Your task to perform on an android device: clear history in the chrome app Image 0: 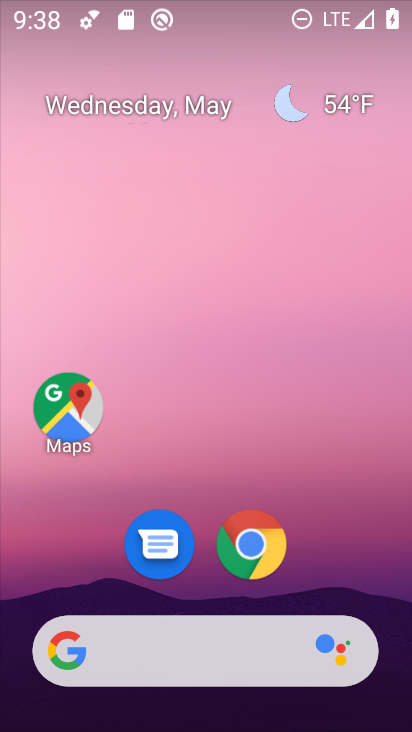
Step 0: click (253, 540)
Your task to perform on an android device: clear history in the chrome app Image 1: 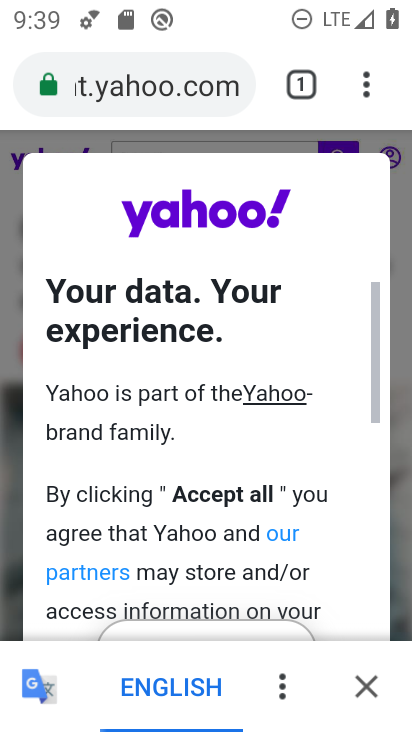
Step 1: click (388, 80)
Your task to perform on an android device: clear history in the chrome app Image 2: 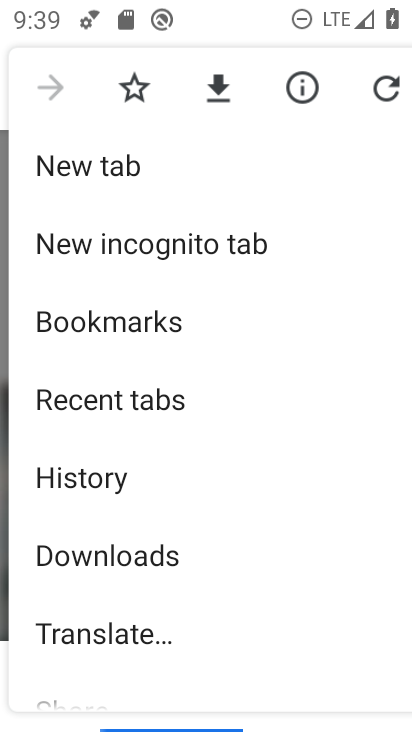
Step 2: click (96, 468)
Your task to perform on an android device: clear history in the chrome app Image 3: 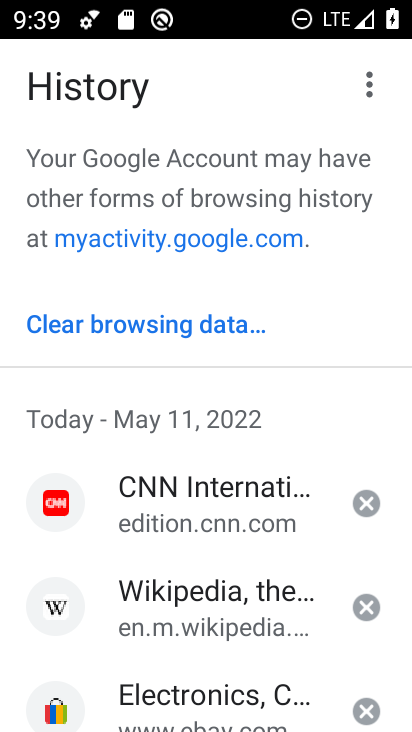
Step 3: click (189, 354)
Your task to perform on an android device: clear history in the chrome app Image 4: 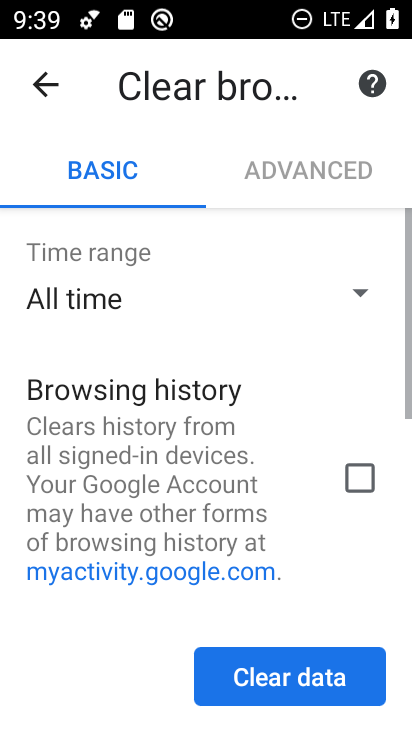
Step 4: click (358, 479)
Your task to perform on an android device: clear history in the chrome app Image 5: 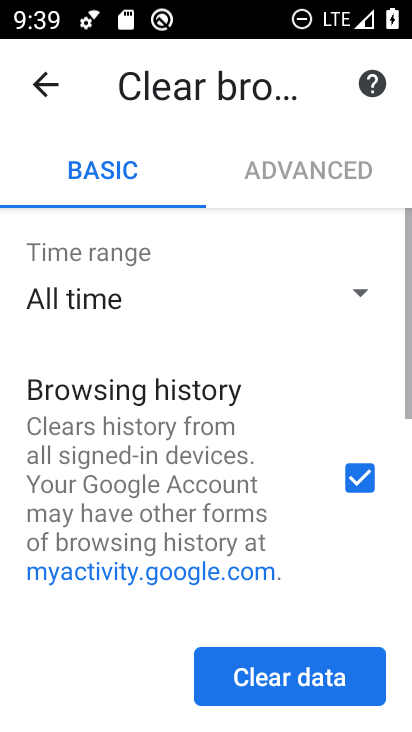
Step 5: click (317, 671)
Your task to perform on an android device: clear history in the chrome app Image 6: 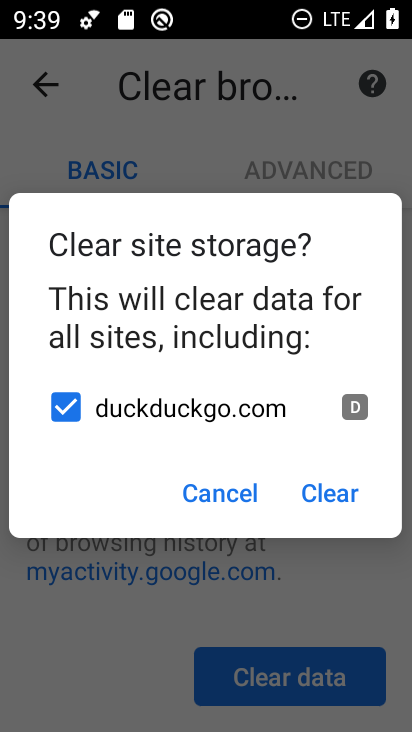
Step 6: task complete